Your task to perform on an android device: Open Google Image 0: 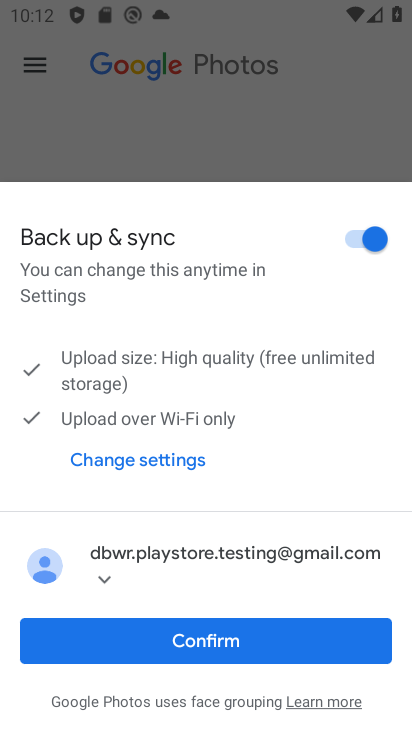
Step 0: press home button
Your task to perform on an android device: Open Google Image 1: 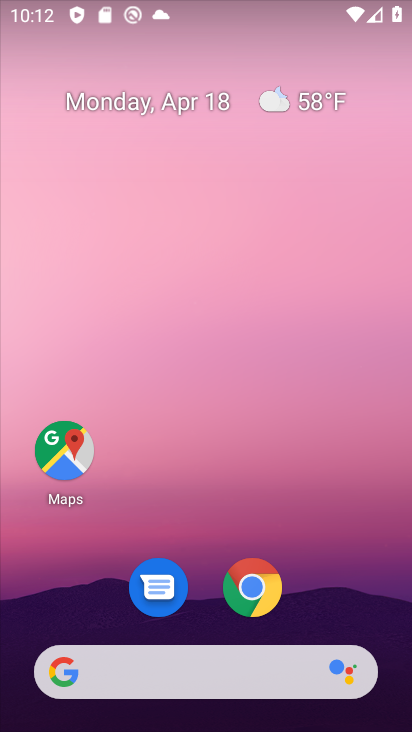
Step 1: click (274, 64)
Your task to perform on an android device: Open Google Image 2: 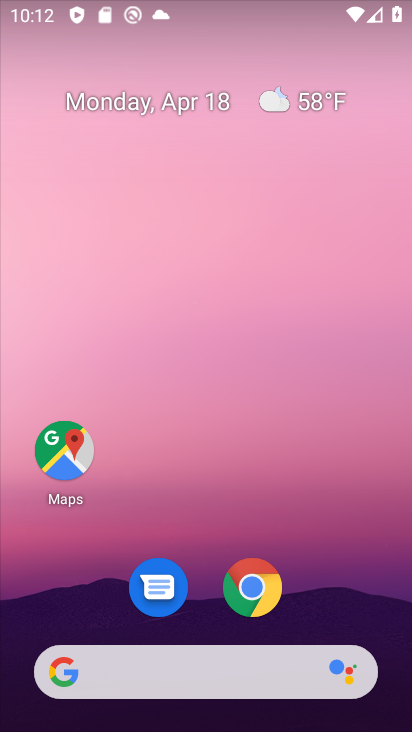
Step 2: drag from (262, 519) to (155, 154)
Your task to perform on an android device: Open Google Image 3: 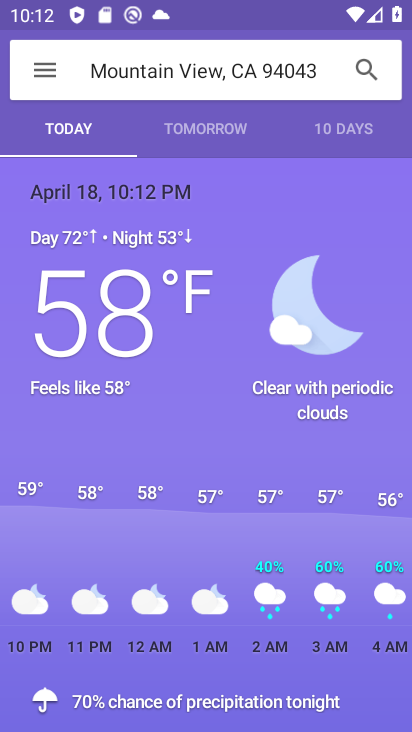
Step 3: press home button
Your task to perform on an android device: Open Google Image 4: 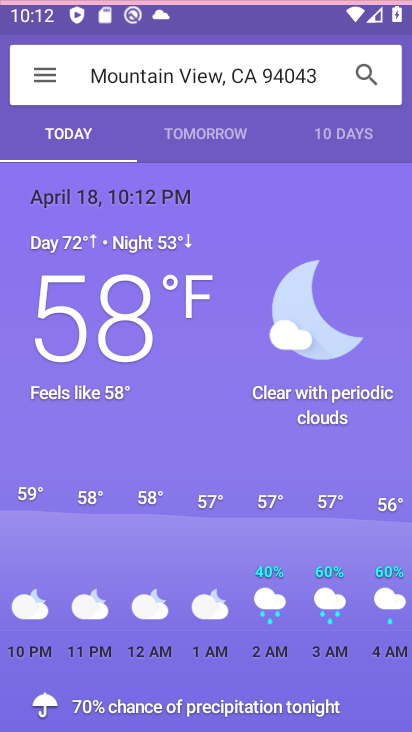
Step 4: press home button
Your task to perform on an android device: Open Google Image 5: 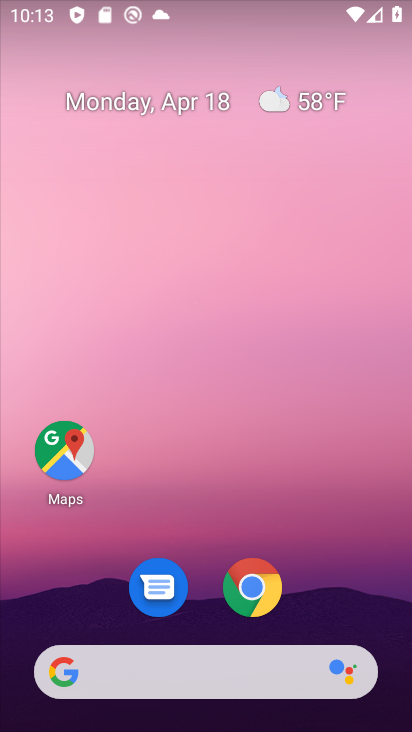
Step 5: drag from (227, 625) to (183, 141)
Your task to perform on an android device: Open Google Image 6: 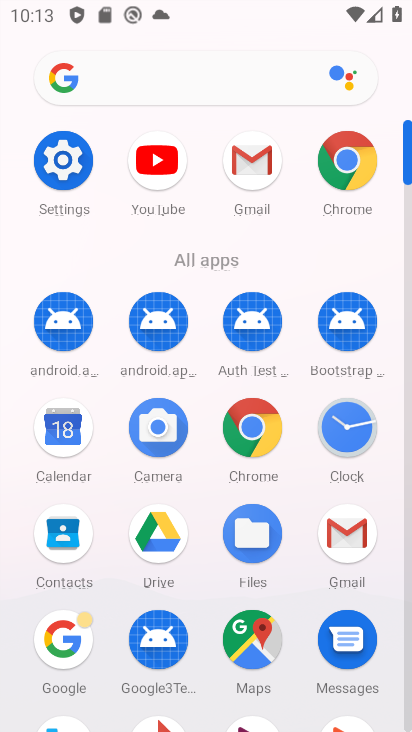
Step 6: click (51, 641)
Your task to perform on an android device: Open Google Image 7: 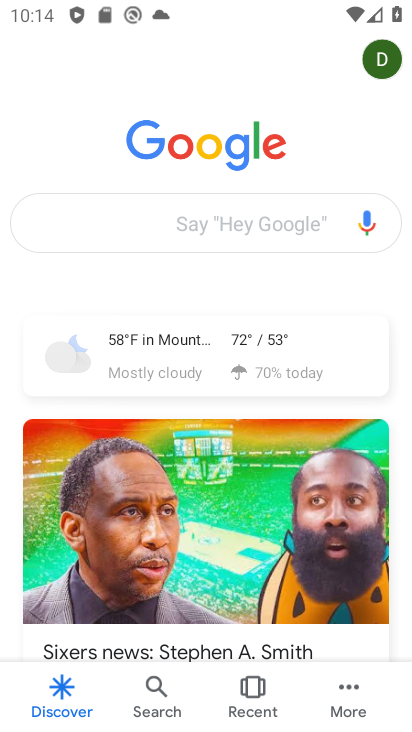
Step 7: task complete